Your task to perform on an android device: change notifications settings Image 0: 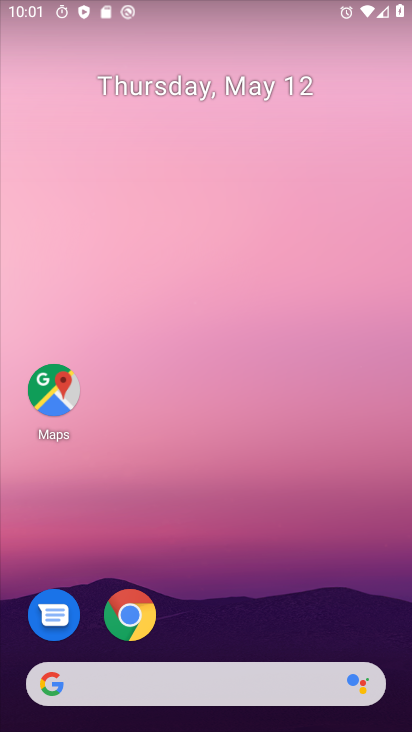
Step 0: drag from (295, 607) to (210, 78)
Your task to perform on an android device: change notifications settings Image 1: 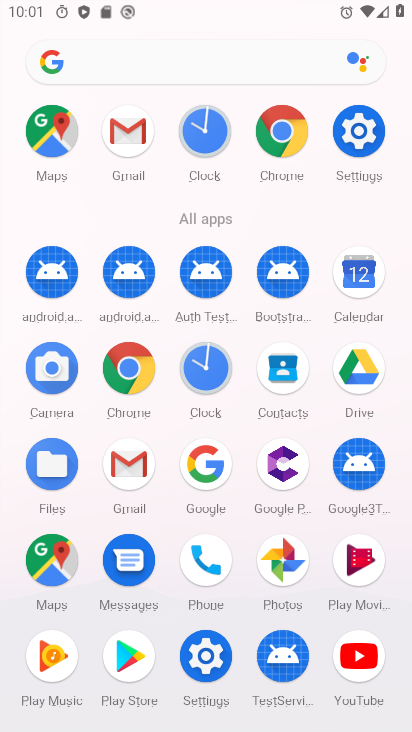
Step 1: click (361, 139)
Your task to perform on an android device: change notifications settings Image 2: 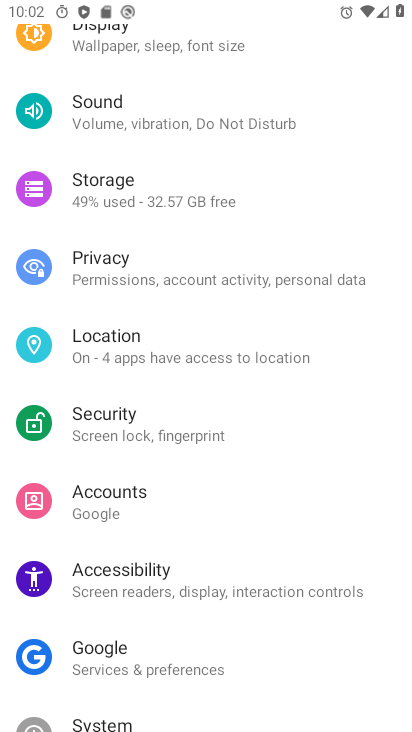
Step 2: drag from (189, 534) to (241, 186)
Your task to perform on an android device: change notifications settings Image 3: 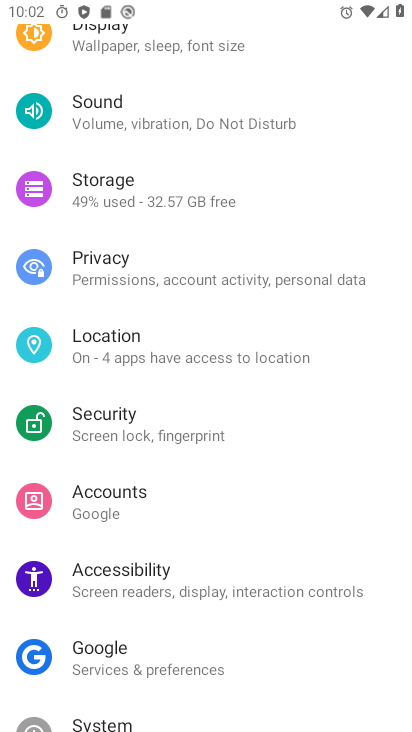
Step 3: drag from (222, 145) to (236, 622)
Your task to perform on an android device: change notifications settings Image 4: 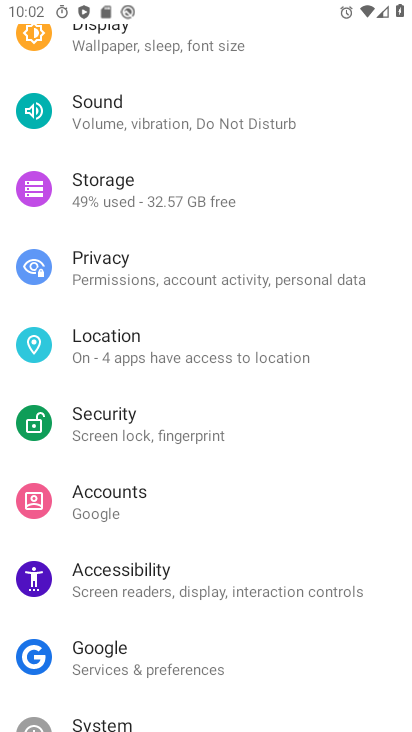
Step 4: drag from (235, 60) to (231, 416)
Your task to perform on an android device: change notifications settings Image 5: 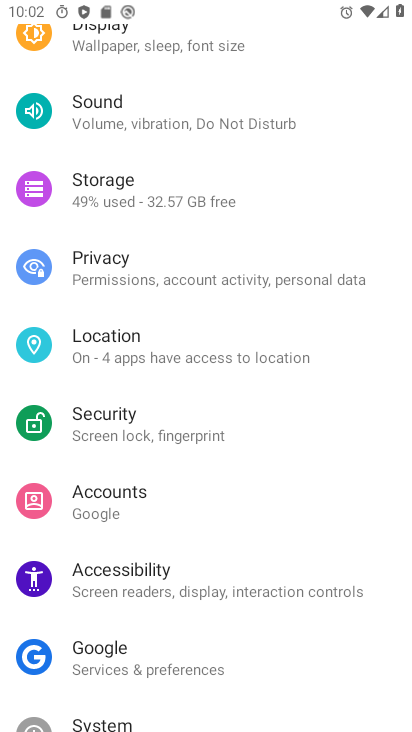
Step 5: drag from (160, 124) to (160, 530)
Your task to perform on an android device: change notifications settings Image 6: 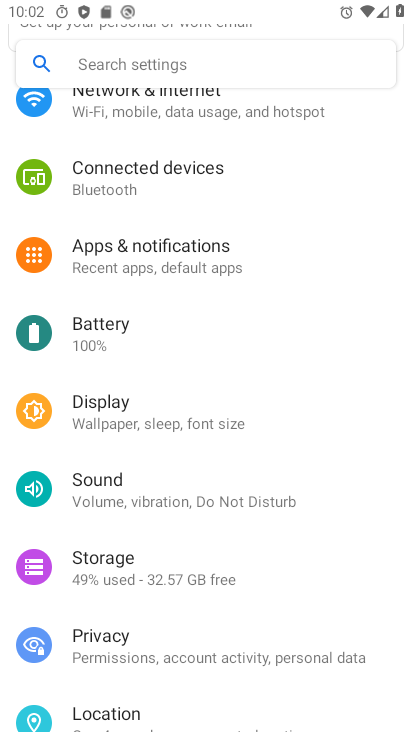
Step 6: drag from (181, 127) to (203, 500)
Your task to perform on an android device: change notifications settings Image 7: 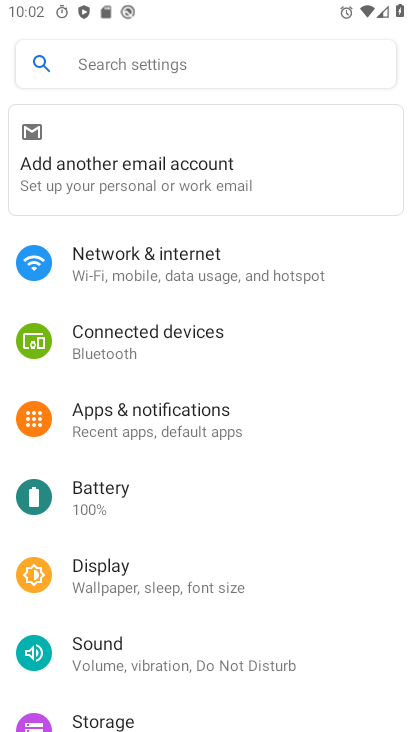
Step 7: click (180, 406)
Your task to perform on an android device: change notifications settings Image 8: 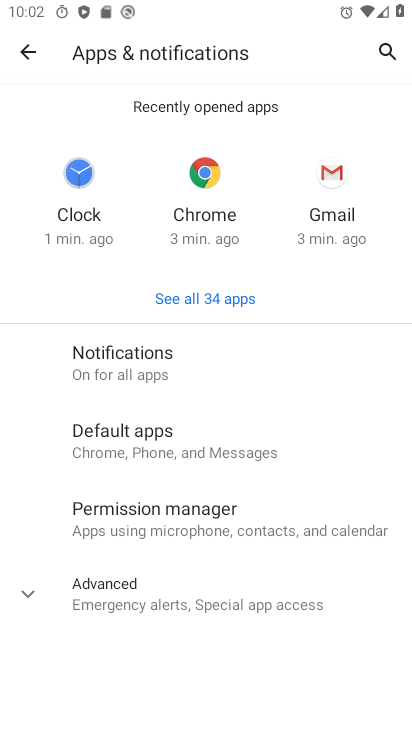
Step 8: click (174, 384)
Your task to perform on an android device: change notifications settings Image 9: 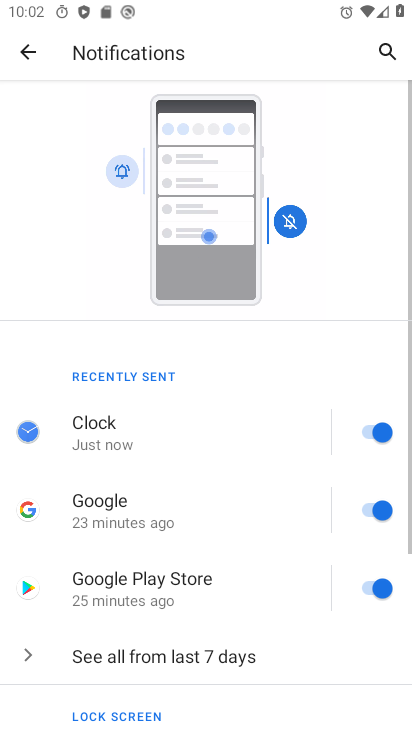
Step 9: drag from (179, 632) to (249, 94)
Your task to perform on an android device: change notifications settings Image 10: 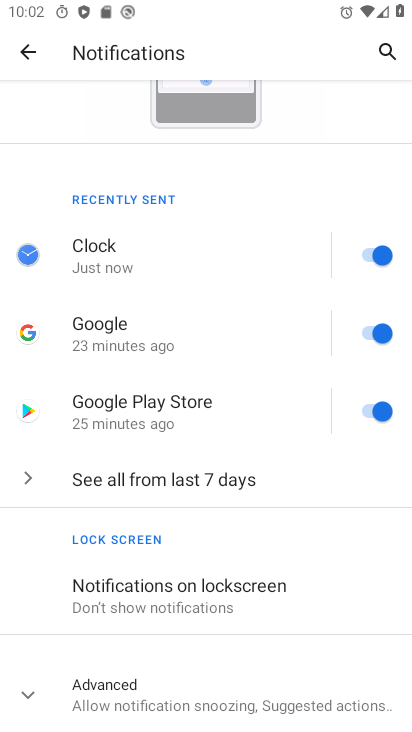
Step 10: click (124, 707)
Your task to perform on an android device: change notifications settings Image 11: 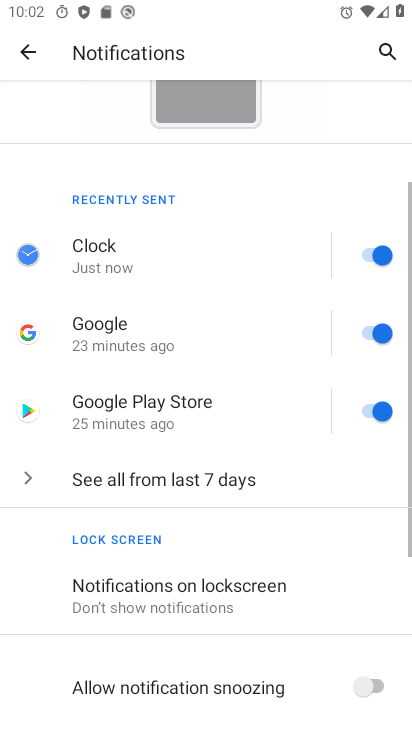
Step 11: drag from (192, 660) to (250, 132)
Your task to perform on an android device: change notifications settings Image 12: 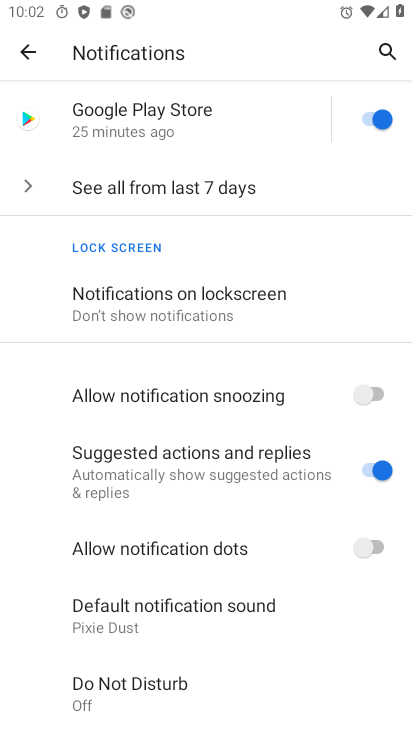
Step 12: click (364, 393)
Your task to perform on an android device: change notifications settings Image 13: 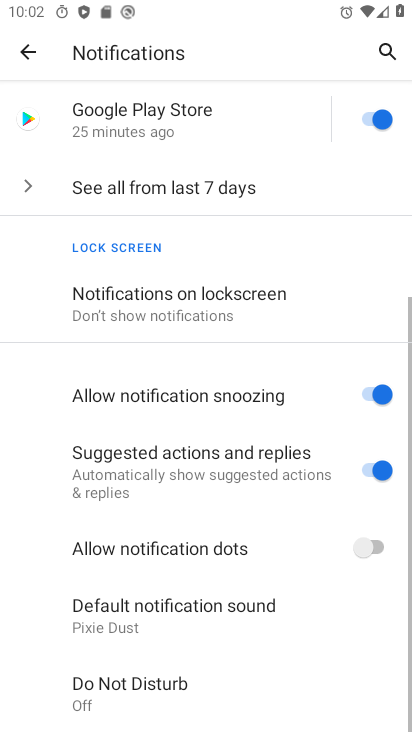
Step 13: task complete